Your task to perform on an android device: Open Android settings Image 0: 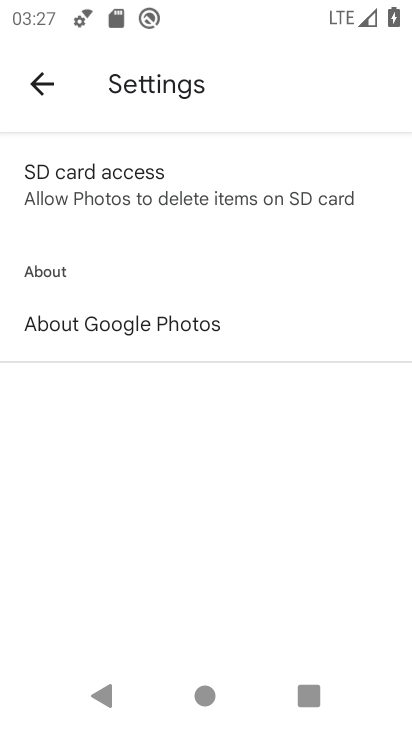
Step 0: press home button
Your task to perform on an android device: Open Android settings Image 1: 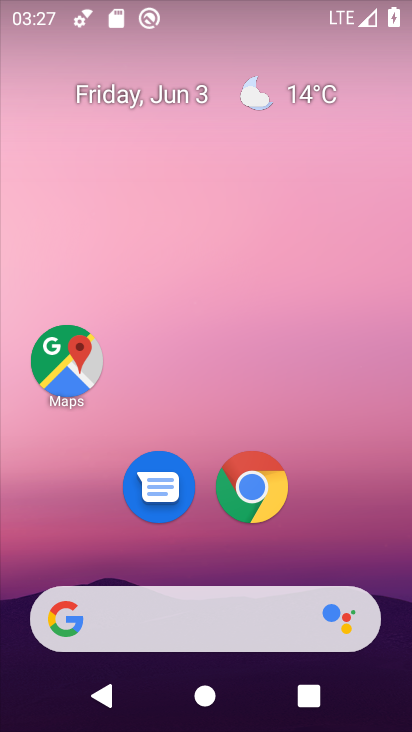
Step 1: drag from (338, 540) to (204, 38)
Your task to perform on an android device: Open Android settings Image 2: 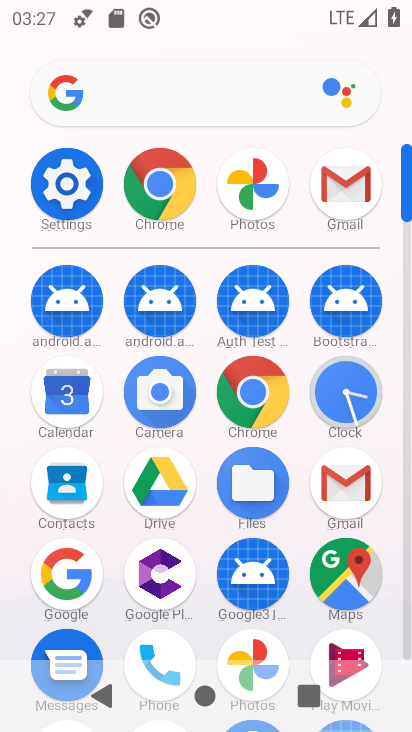
Step 2: click (52, 178)
Your task to perform on an android device: Open Android settings Image 3: 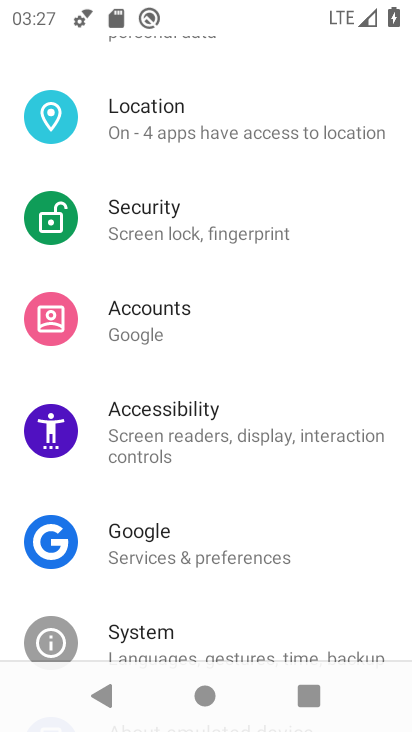
Step 3: drag from (269, 608) to (273, 276)
Your task to perform on an android device: Open Android settings Image 4: 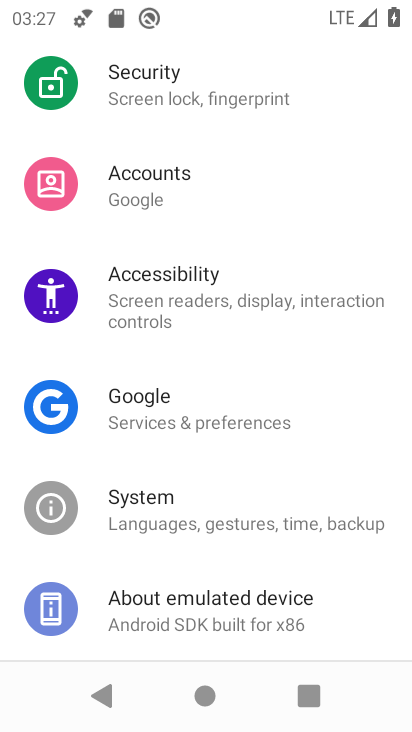
Step 4: click (251, 606)
Your task to perform on an android device: Open Android settings Image 5: 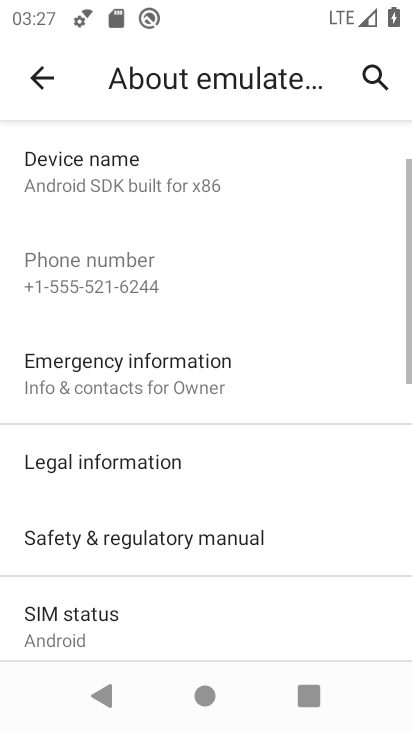
Step 5: drag from (212, 604) to (219, 199)
Your task to perform on an android device: Open Android settings Image 6: 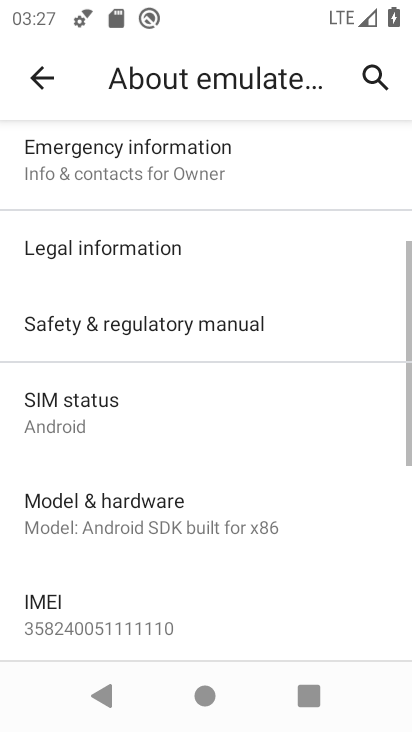
Step 6: drag from (215, 572) to (227, 137)
Your task to perform on an android device: Open Android settings Image 7: 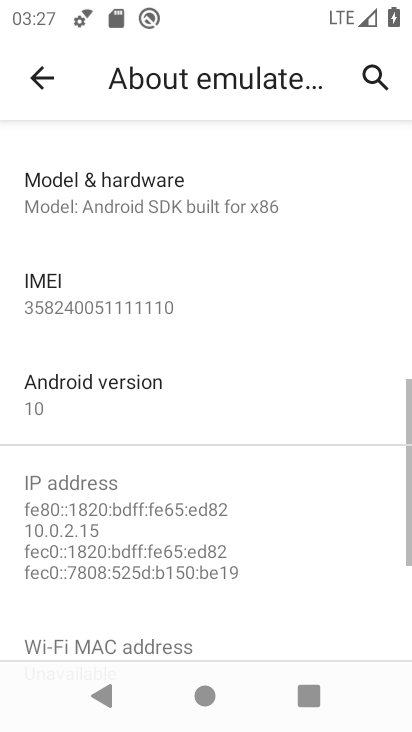
Step 7: click (167, 403)
Your task to perform on an android device: Open Android settings Image 8: 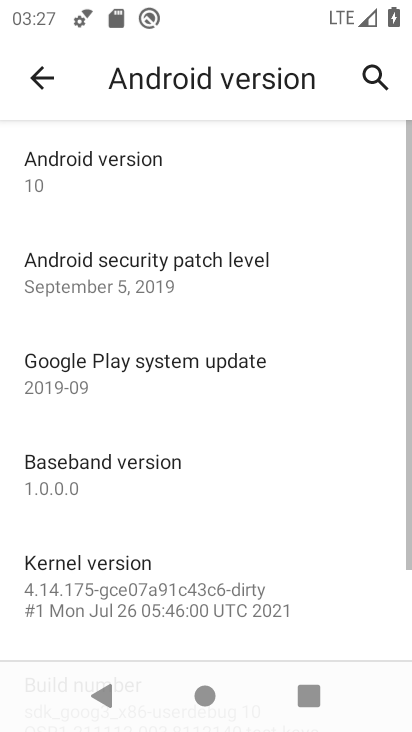
Step 8: task complete